Your task to perform on an android device: open the mobile data screen to see how much data has been used Image 0: 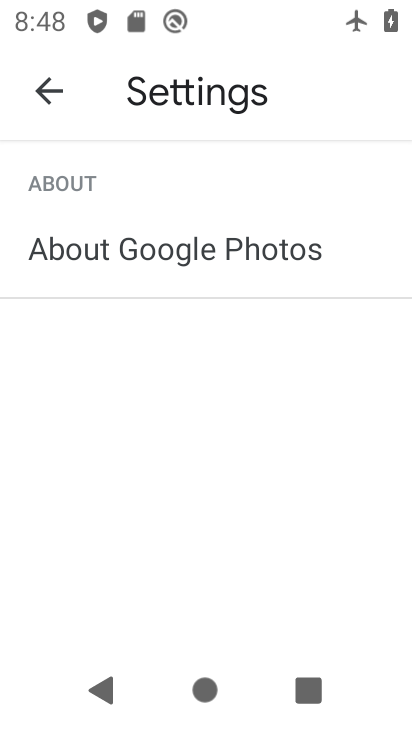
Step 0: press home button
Your task to perform on an android device: open the mobile data screen to see how much data has been used Image 1: 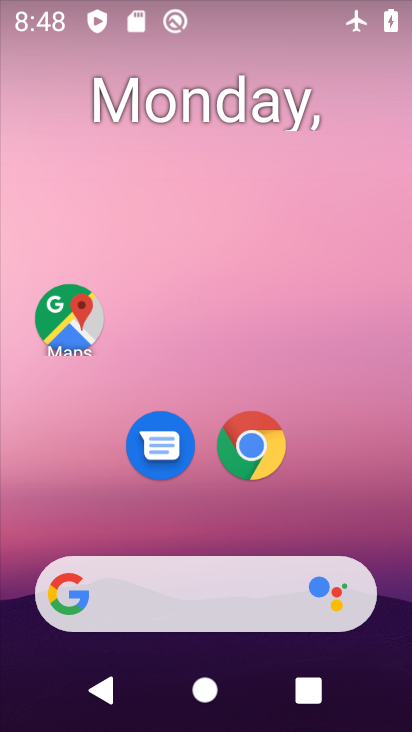
Step 1: drag from (381, 522) to (387, 187)
Your task to perform on an android device: open the mobile data screen to see how much data has been used Image 2: 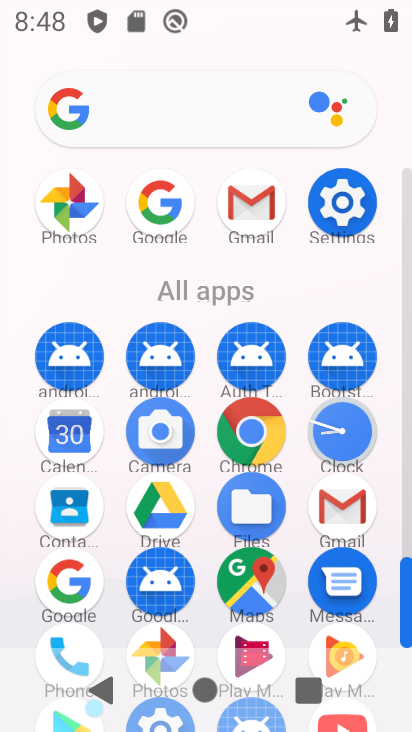
Step 2: click (335, 228)
Your task to perform on an android device: open the mobile data screen to see how much data has been used Image 3: 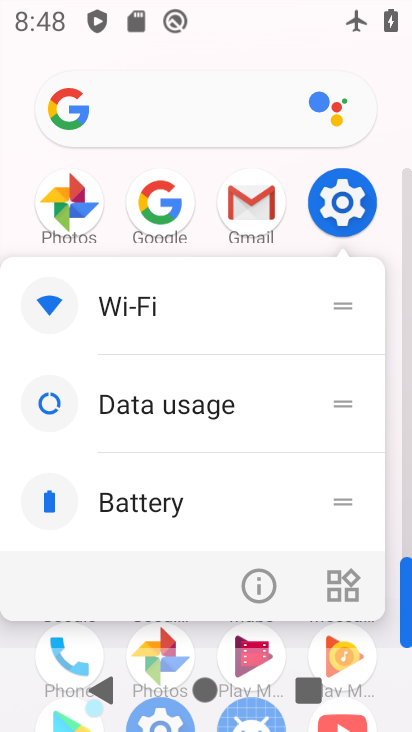
Step 3: click (335, 228)
Your task to perform on an android device: open the mobile data screen to see how much data has been used Image 4: 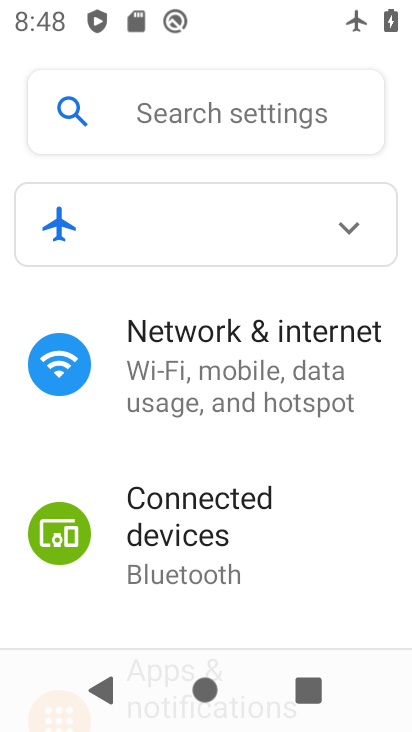
Step 4: click (338, 380)
Your task to perform on an android device: open the mobile data screen to see how much data has been used Image 5: 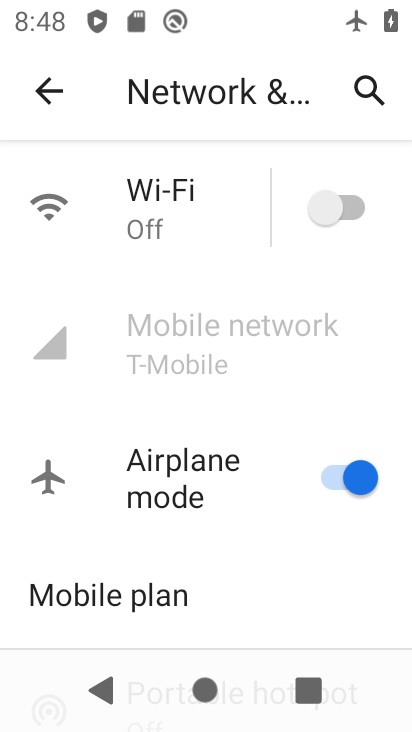
Step 5: task complete